Your task to perform on an android device: turn on the 24-hour format for clock Image 0: 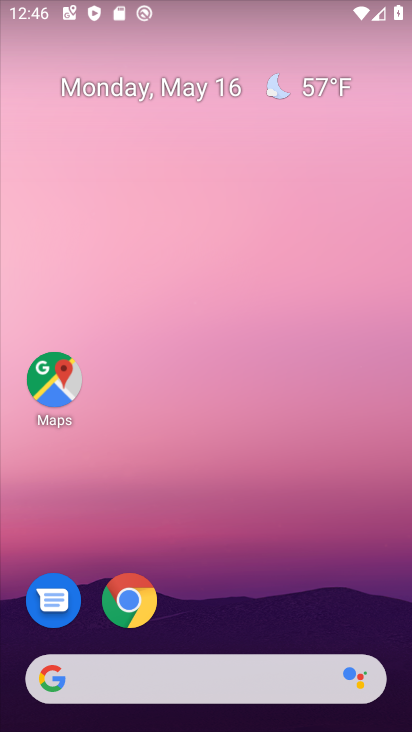
Step 0: drag from (225, 575) to (308, 90)
Your task to perform on an android device: turn on the 24-hour format for clock Image 1: 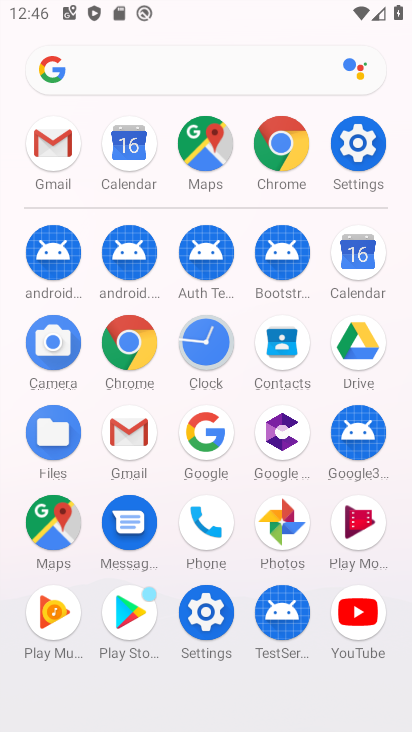
Step 1: click (206, 346)
Your task to perform on an android device: turn on the 24-hour format for clock Image 2: 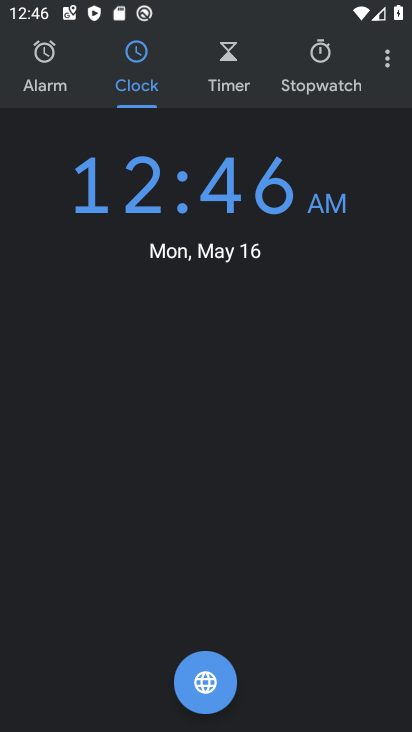
Step 2: click (381, 57)
Your task to perform on an android device: turn on the 24-hour format for clock Image 3: 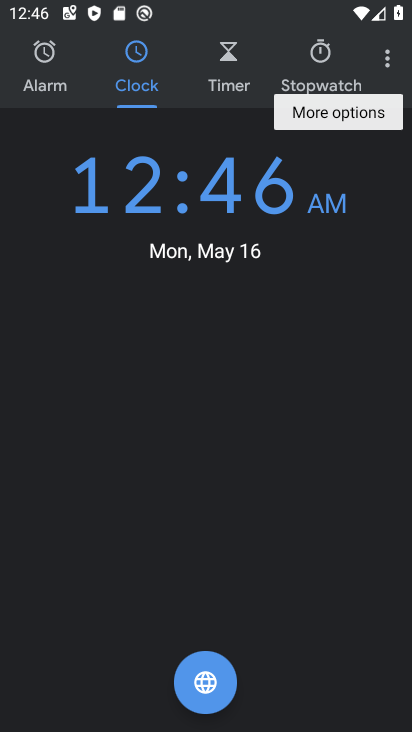
Step 3: click (388, 57)
Your task to perform on an android device: turn on the 24-hour format for clock Image 4: 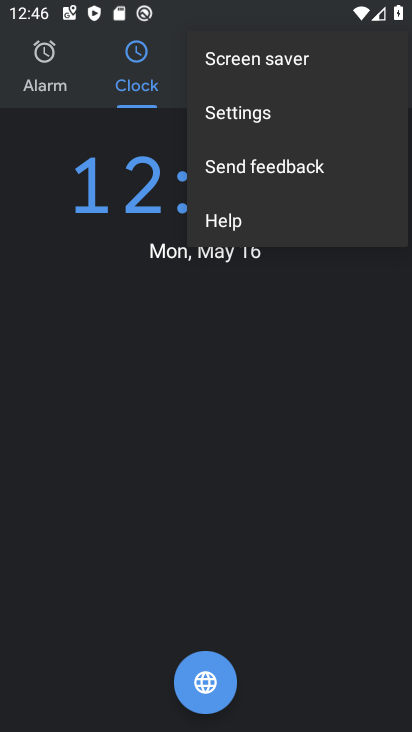
Step 4: click (214, 111)
Your task to perform on an android device: turn on the 24-hour format for clock Image 5: 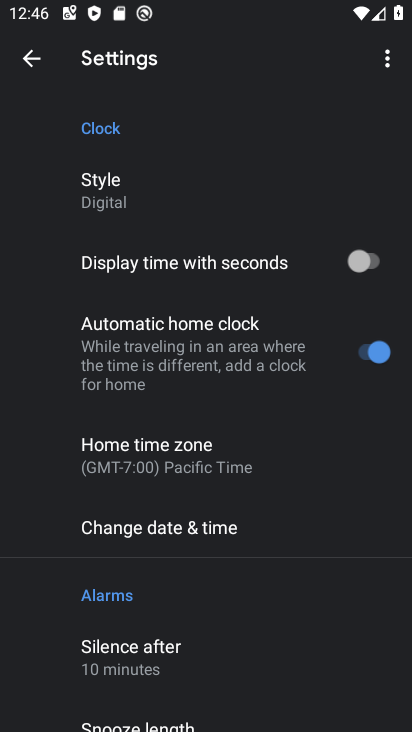
Step 5: click (220, 532)
Your task to perform on an android device: turn on the 24-hour format for clock Image 6: 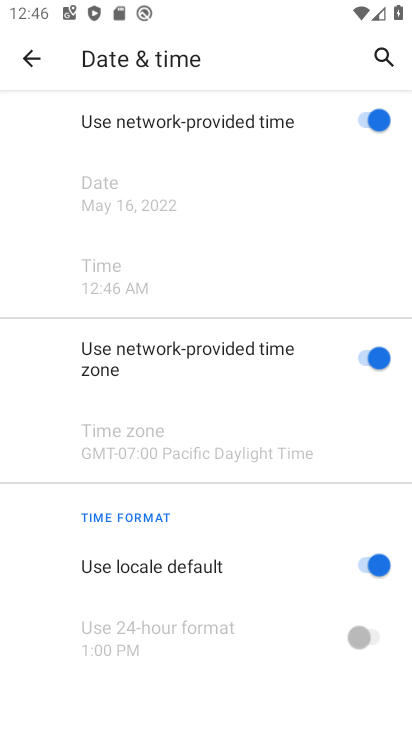
Step 6: click (368, 556)
Your task to perform on an android device: turn on the 24-hour format for clock Image 7: 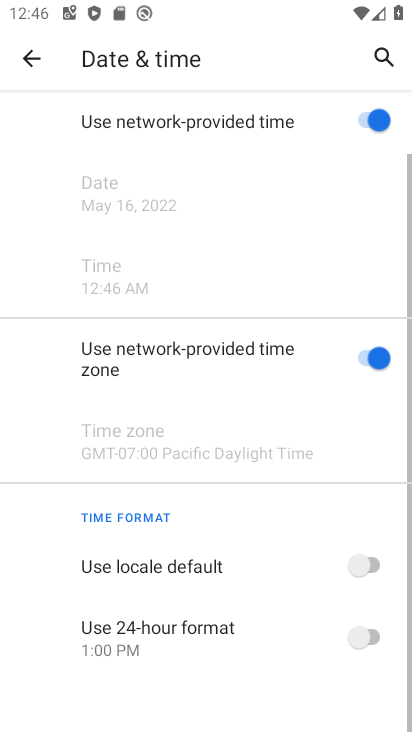
Step 7: click (358, 639)
Your task to perform on an android device: turn on the 24-hour format for clock Image 8: 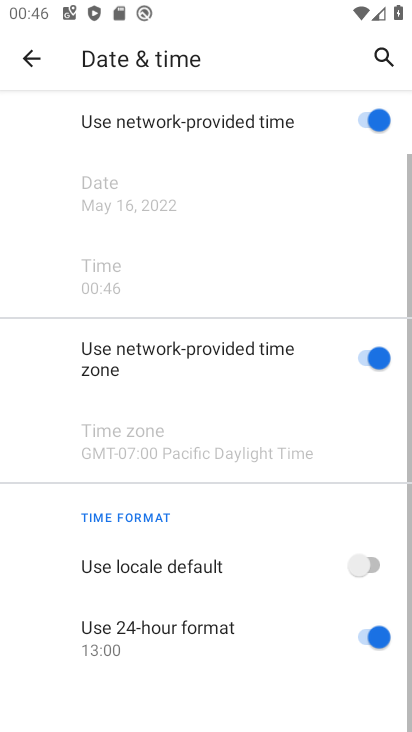
Step 8: task complete